Your task to perform on an android device: set the stopwatch Image 0: 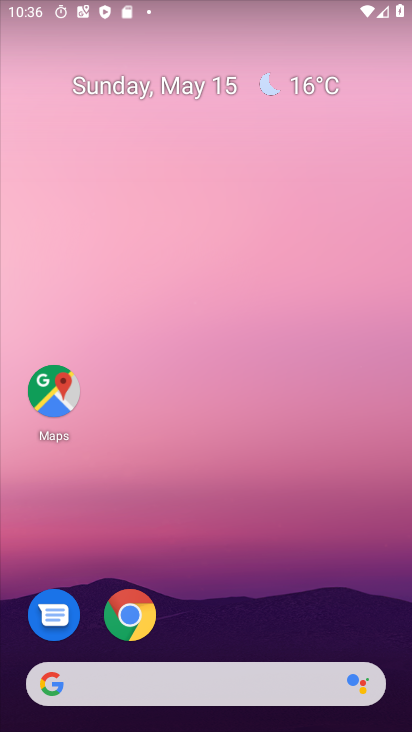
Step 0: drag from (351, 669) to (395, 12)
Your task to perform on an android device: set the stopwatch Image 1: 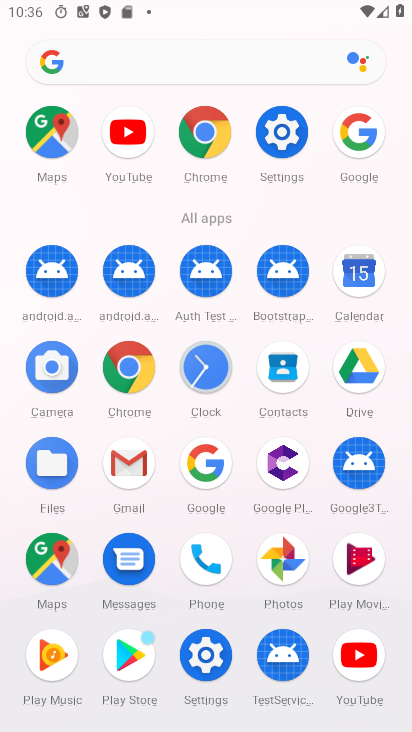
Step 1: click (218, 374)
Your task to perform on an android device: set the stopwatch Image 2: 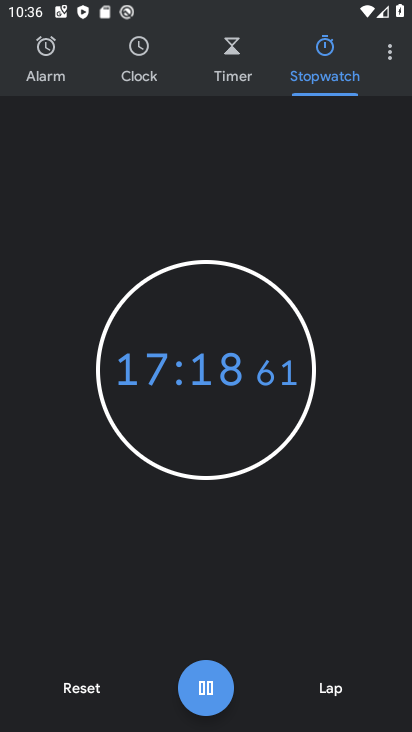
Step 2: click (92, 689)
Your task to perform on an android device: set the stopwatch Image 3: 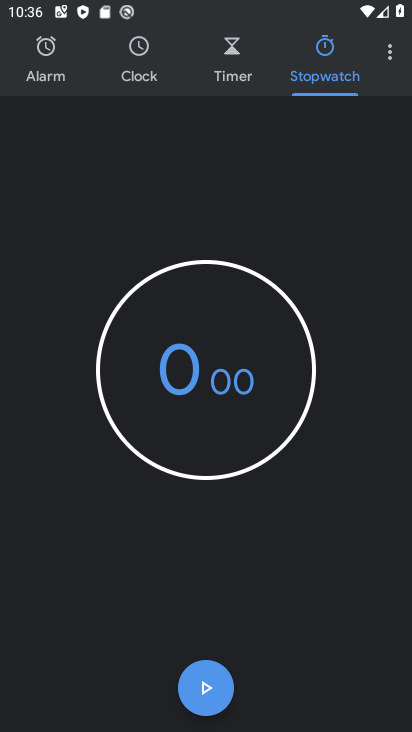
Step 3: click (91, 689)
Your task to perform on an android device: set the stopwatch Image 4: 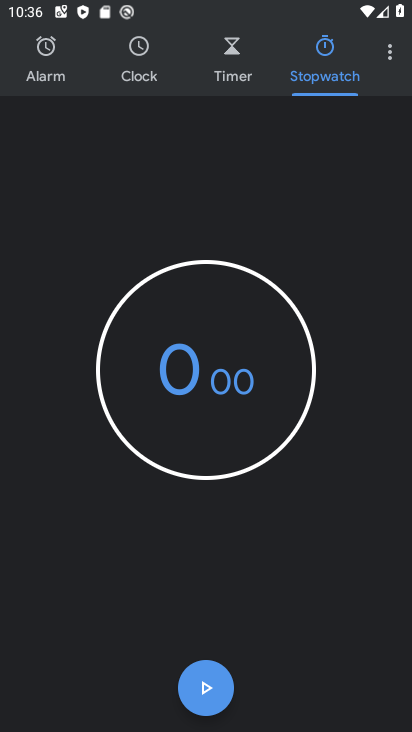
Step 4: click (203, 710)
Your task to perform on an android device: set the stopwatch Image 5: 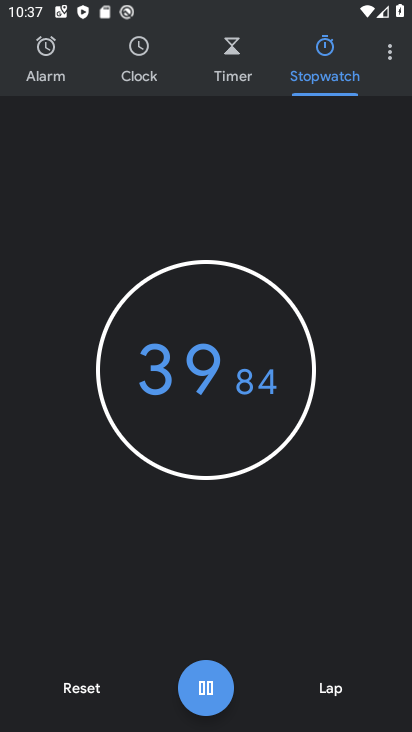
Step 5: click (89, 688)
Your task to perform on an android device: set the stopwatch Image 6: 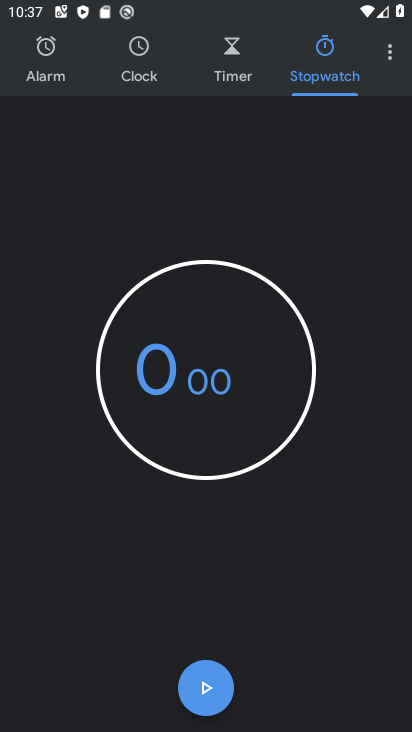
Step 6: click (89, 688)
Your task to perform on an android device: set the stopwatch Image 7: 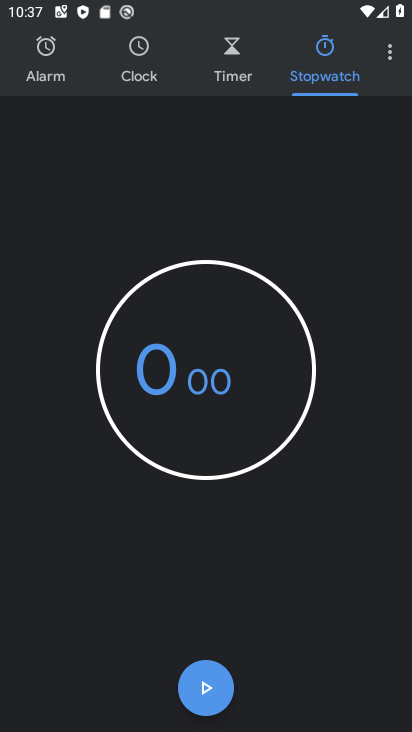
Step 7: task complete